Your task to perform on an android device: turn on improve location accuracy Image 0: 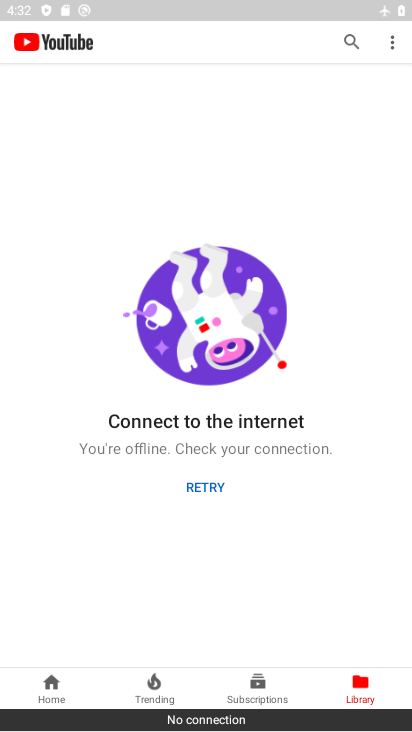
Step 0: press home button
Your task to perform on an android device: turn on improve location accuracy Image 1: 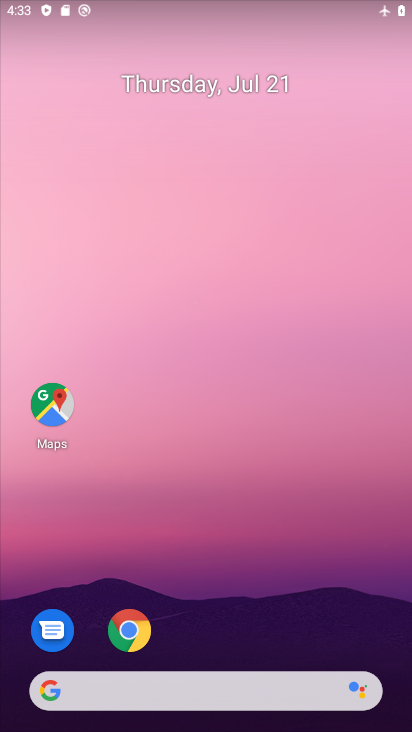
Step 1: drag from (278, 649) to (229, 19)
Your task to perform on an android device: turn on improve location accuracy Image 2: 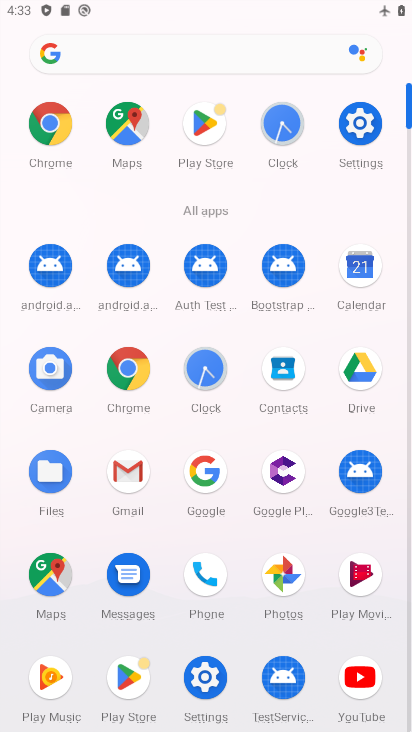
Step 2: click (363, 135)
Your task to perform on an android device: turn on improve location accuracy Image 3: 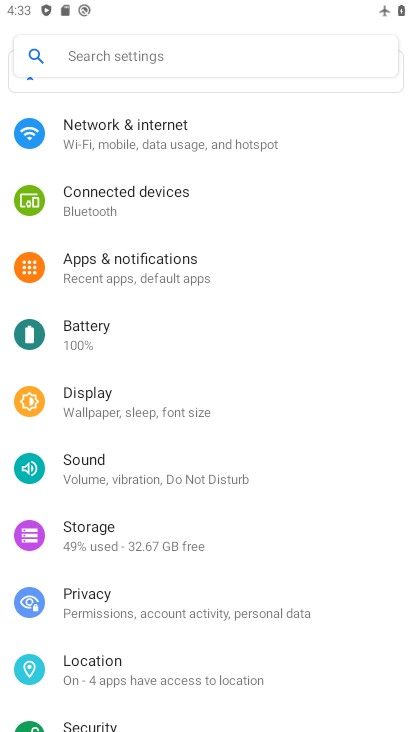
Step 3: click (204, 671)
Your task to perform on an android device: turn on improve location accuracy Image 4: 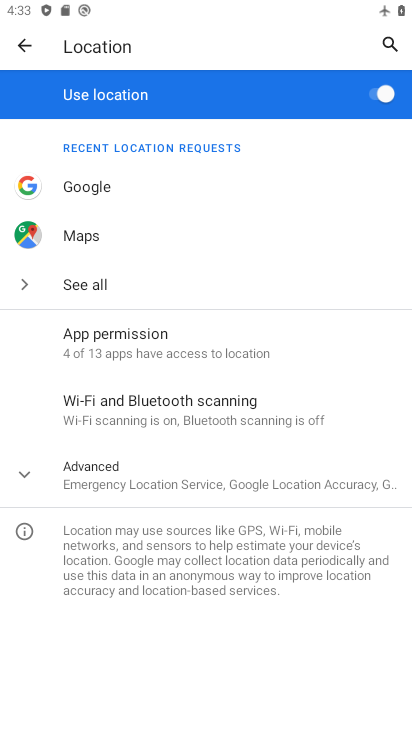
Step 4: click (231, 479)
Your task to perform on an android device: turn on improve location accuracy Image 5: 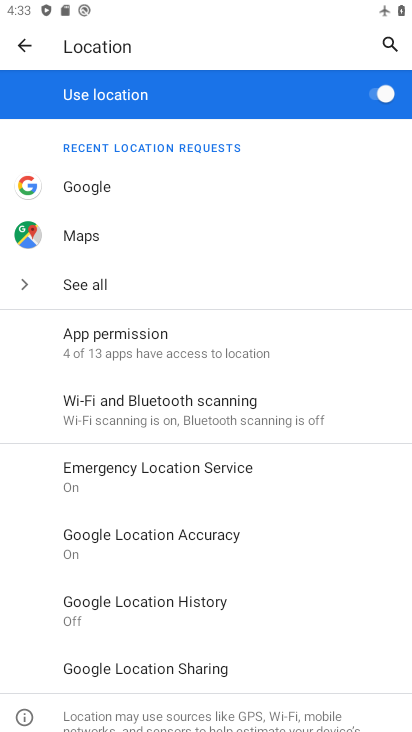
Step 5: click (217, 552)
Your task to perform on an android device: turn on improve location accuracy Image 6: 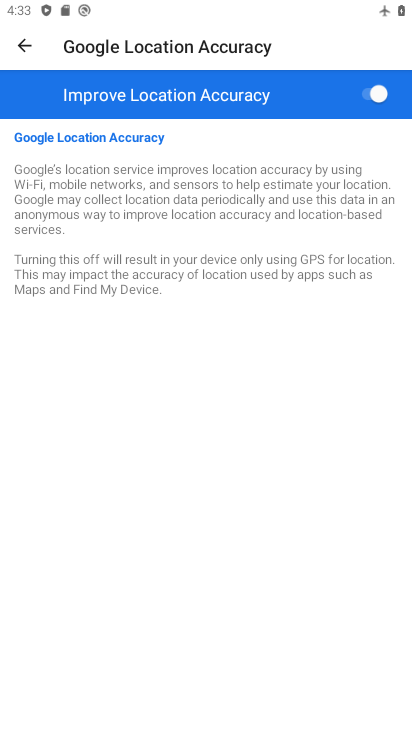
Step 6: task complete